Your task to perform on an android device: open app "Skype" (install if not already installed) Image 0: 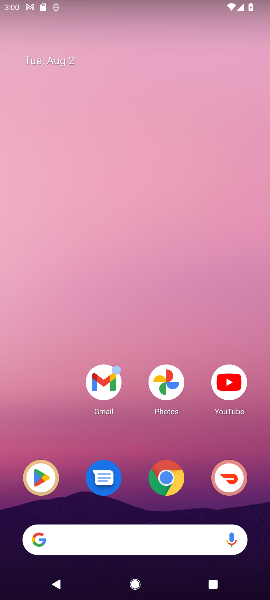
Step 0: drag from (148, 485) to (148, 55)
Your task to perform on an android device: open app "Skype" (install if not already installed) Image 1: 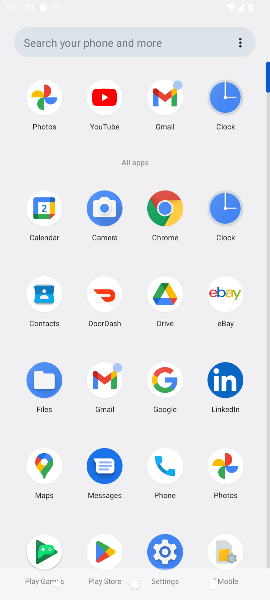
Step 1: drag from (156, 463) to (106, 76)
Your task to perform on an android device: open app "Skype" (install if not already installed) Image 2: 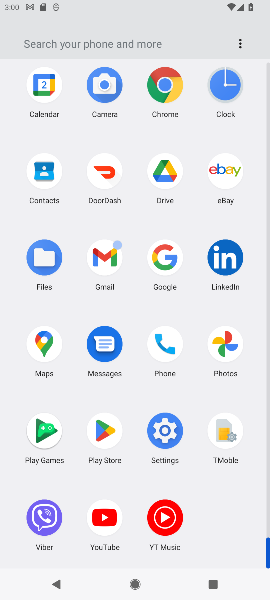
Step 2: drag from (98, 405) to (71, 189)
Your task to perform on an android device: open app "Skype" (install if not already installed) Image 3: 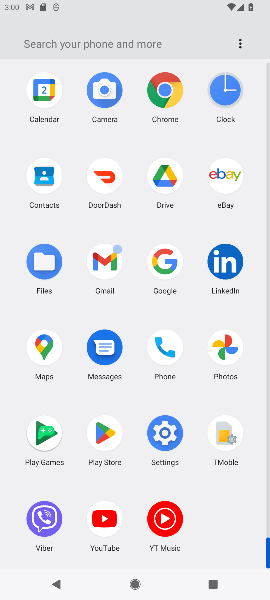
Step 3: click (106, 421)
Your task to perform on an android device: open app "Skype" (install if not already installed) Image 4: 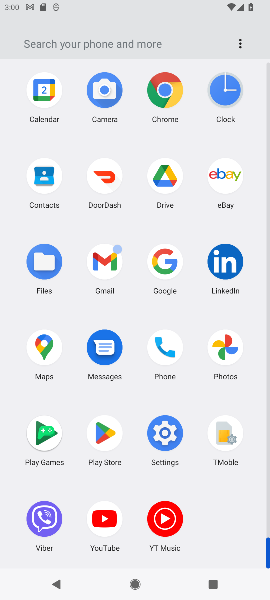
Step 4: click (106, 421)
Your task to perform on an android device: open app "Skype" (install if not already installed) Image 5: 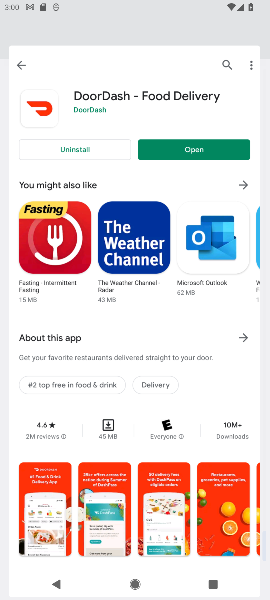
Step 5: click (106, 423)
Your task to perform on an android device: open app "Skype" (install if not already installed) Image 6: 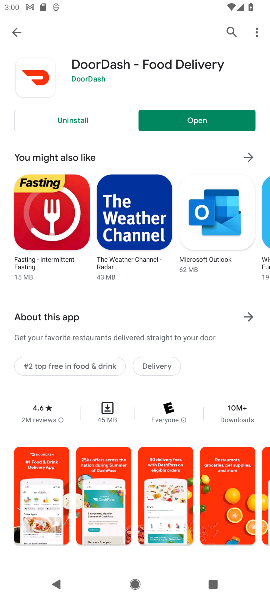
Step 6: click (106, 424)
Your task to perform on an android device: open app "Skype" (install if not already installed) Image 7: 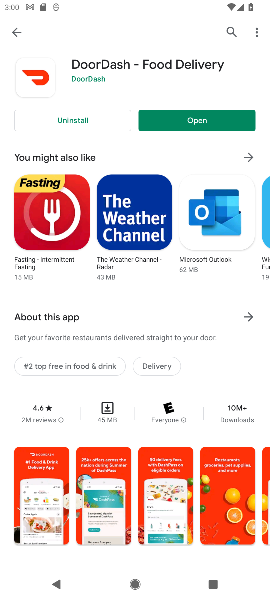
Step 7: click (107, 425)
Your task to perform on an android device: open app "Skype" (install if not already installed) Image 8: 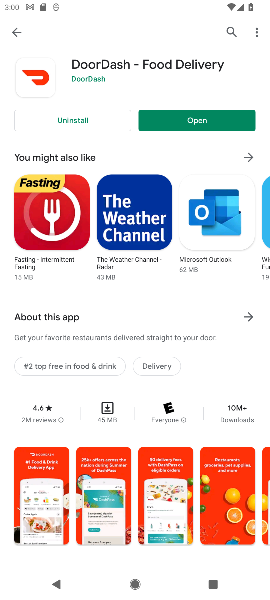
Step 8: click (16, 29)
Your task to perform on an android device: open app "Skype" (install if not already installed) Image 9: 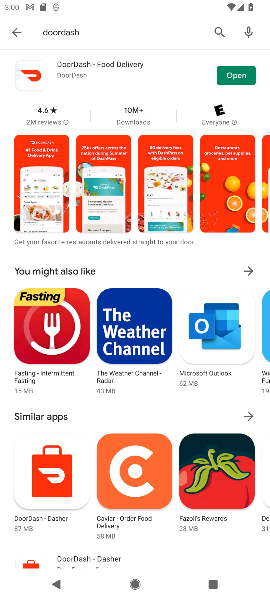
Step 9: click (17, 29)
Your task to perform on an android device: open app "Skype" (install if not already installed) Image 10: 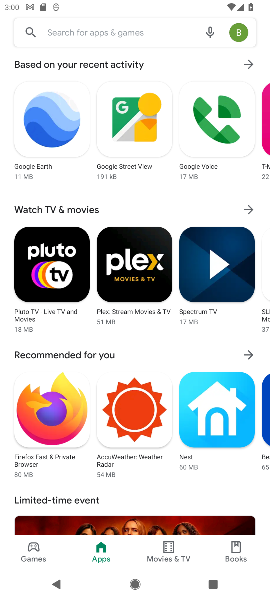
Step 10: click (67, 32)
Your task to perform on an android device: open app "Skype" (install if not already installed) Image 11: 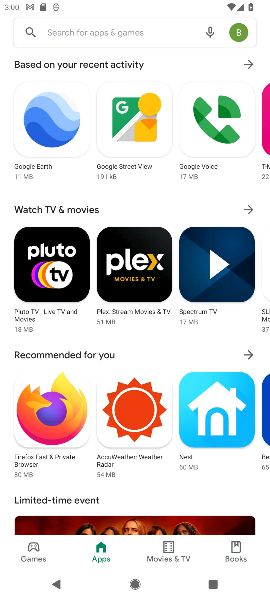
Step 11: click (67, 32)
Your task to perform on an android device: open app "Skype" (install if not already installed) Image 12: 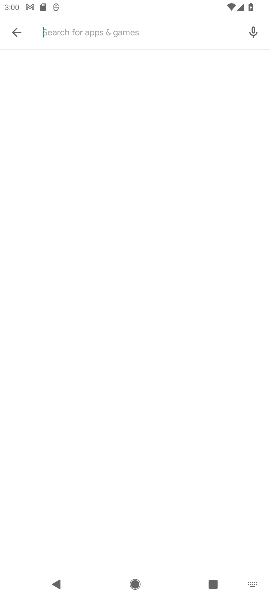
Step 12: click (67, 32)
Your task to perform on an android device: open app "Skype" (install if not already installed) Image 13: 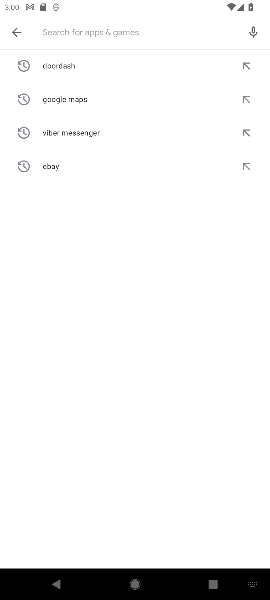
Step 13: type "skype"
Your task to perform on an android device: open app "Skype" (install if not already installed) Image 14: 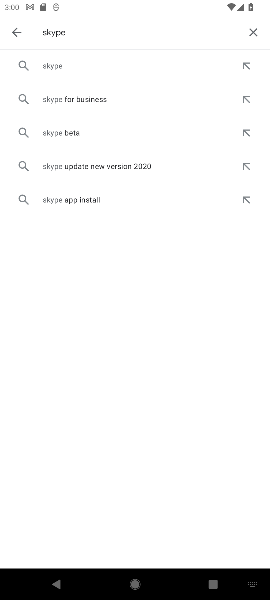
Step 14: click (60, 69)
Your task to perform on an android device: open app "Skype" (install if not already installed) Image 15: 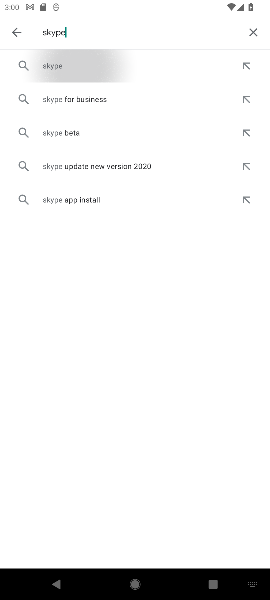
Step 15: click (59, 69)
Your task to perform on an android device: open app "Skype" (install if not already installed) Image 16: 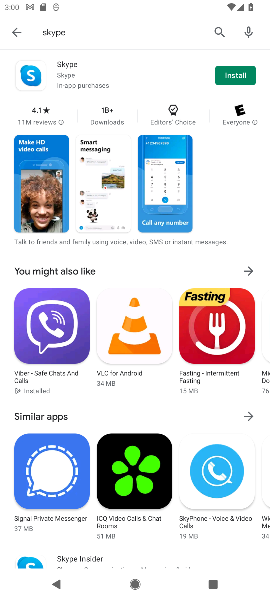
Step 16: click (236, 73)
Your task to perform on an android device: open app "Skype" (install if not already installed) Image 17: 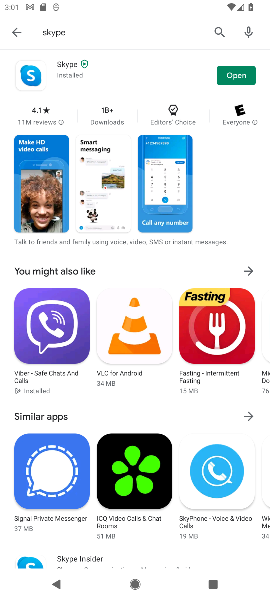
Step 17: click (240, 75)
Your task to perform on an android device: open app "Skype" (install if not already installed) Image 18: 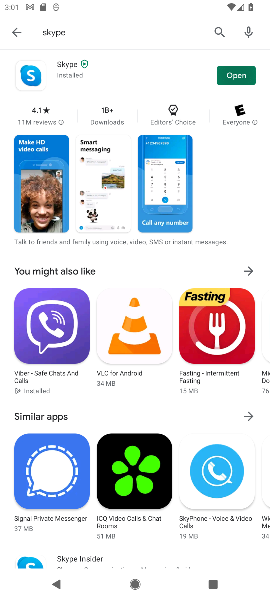
Step 18: click (241, 74)
Your task to perform on an android device: open app "Skype" (install if not already installed) Image 19: 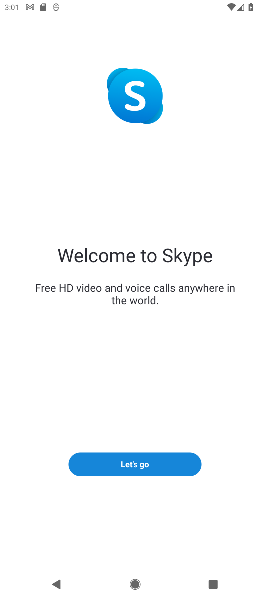
Step 19: click (153, 462)
Your task to perform on an android device: open app "Skype" (install if not already installed) Image 20: 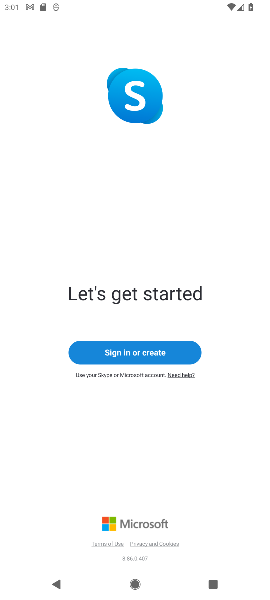
Step 20: task complete